Your task to perform on an android device: Go to display settings Image 0: 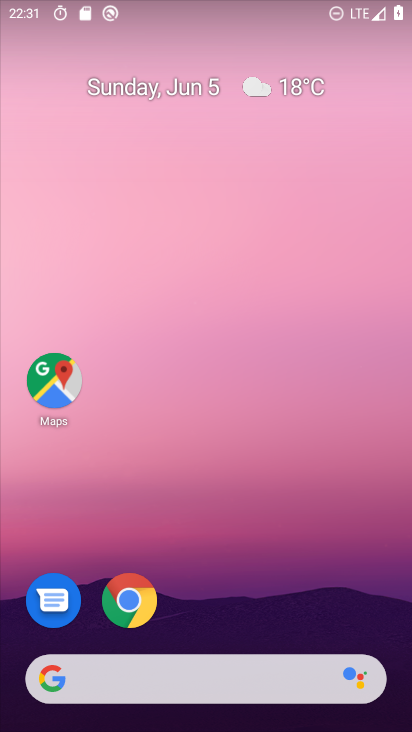
Step 0: drag from (320, 496) to (227, 249)
Your task to perform on an android device: Go to display settings Image 1: 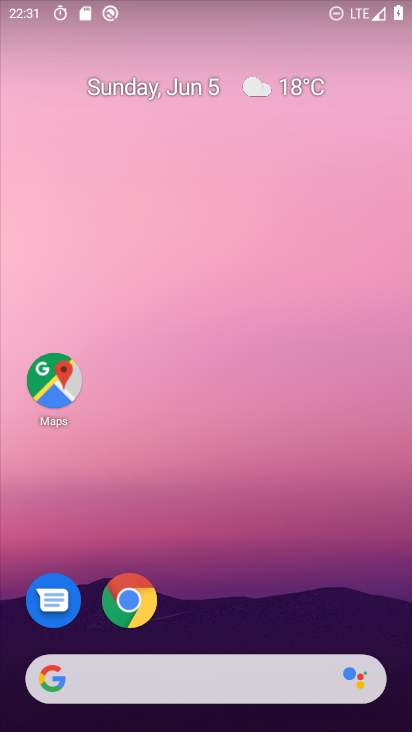
Step 1: drag from (236, 373) to (163, 43)
Your task to perform on an android device: Go to display settings Image 2: 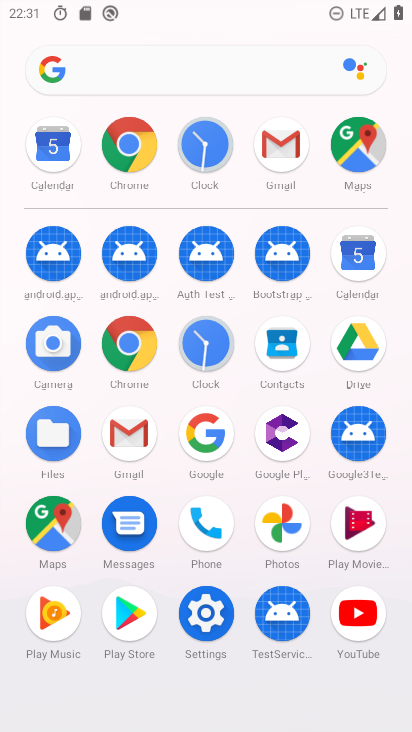
Step 2: click (200, 613)
Your task to perform on an android device: Go to display settings Image 3: 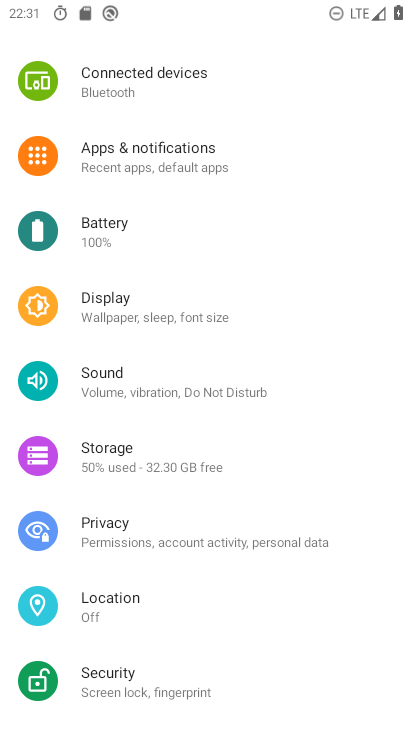
Step 3: click (161, 302)
Your task to perform on an android device: Go to display settings Image 4: 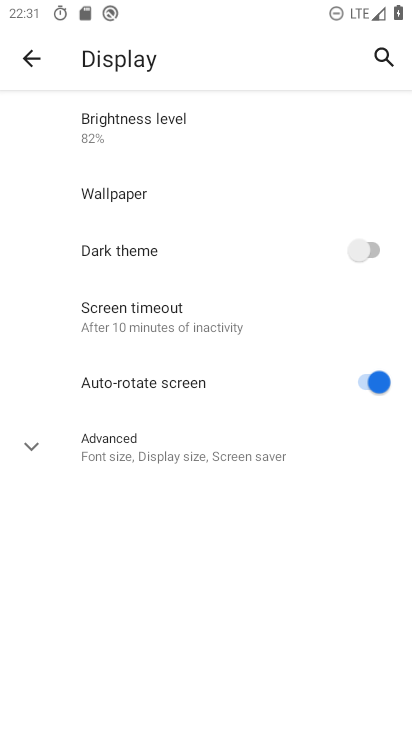
Step 4: task complete